Your task to perform on an android device: Go to Reddit.com Image 0: 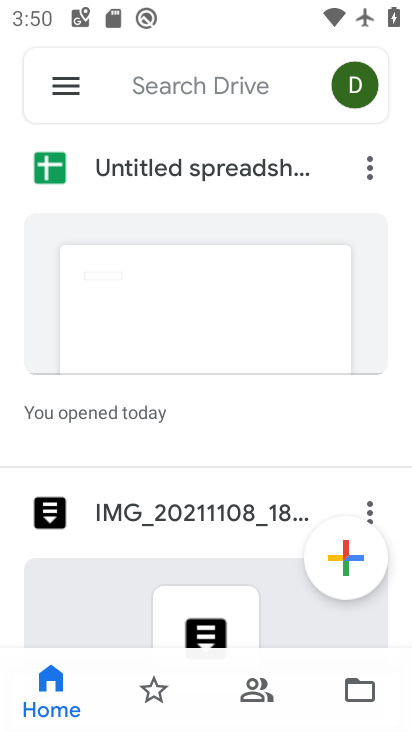
Step 0: press home button
Your task to perform on an android device: Go to Reddit.com Image 1: 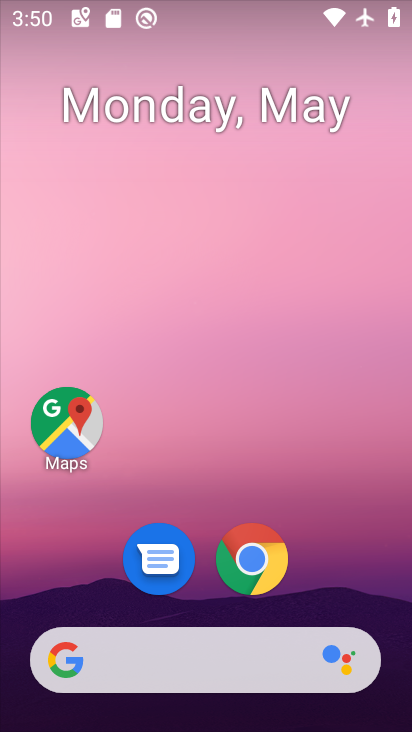
Step 1: click (233, 574)
Your task to perform on an android device: Go to Reddit.com Image 2: 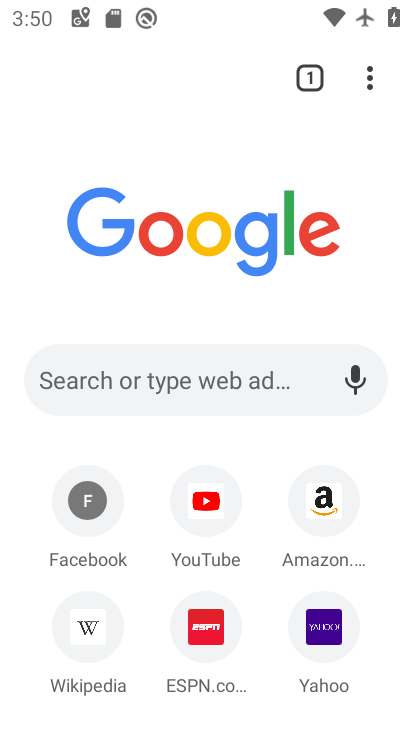
Step 2: click (190, 378)
Your task to perform on an android device: Go to Reddit.com Image 3: 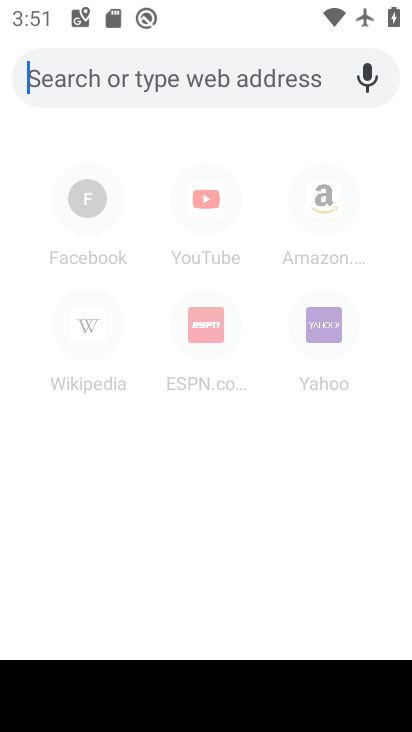
Step 3: type "www.reddit.com"
Your task to perform on an android device: Go to Reddit.com Image 4: 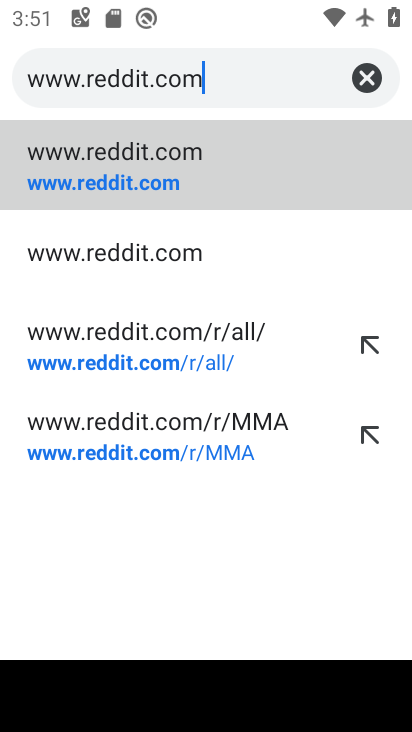
Step 4: click (104, 194)
Your task to perform on an android device: Go to Reddit.com Image 5: 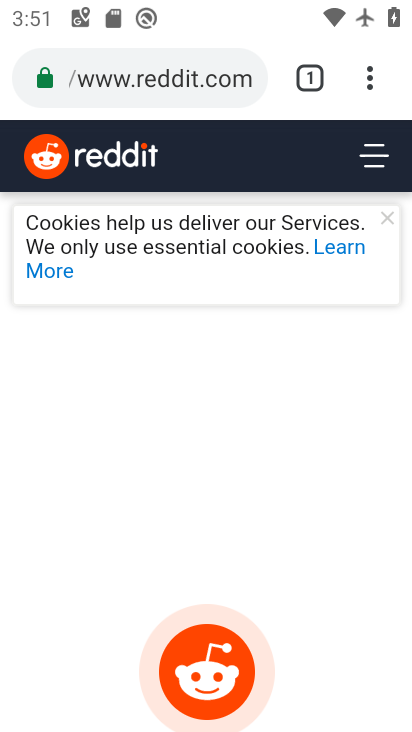
Step 5: task complete